Your task to perform on an android device: check data usage Image 0: 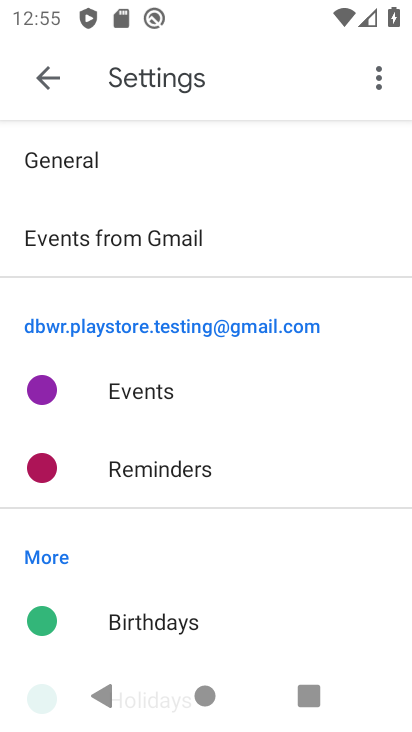
Step 0: press back button
Your task to perform on an android device: check data usage Image 1: 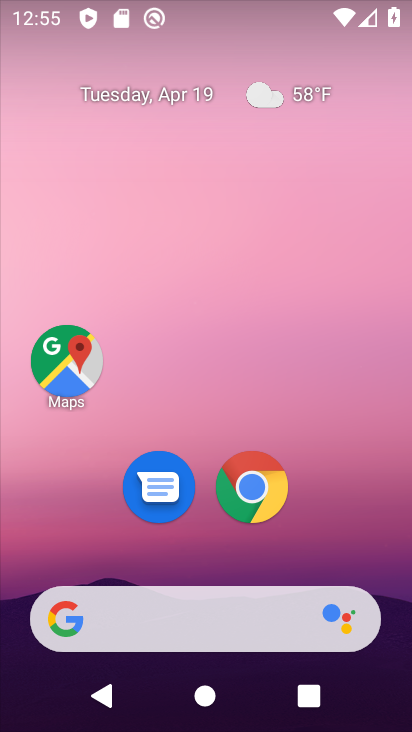
Step 1: drag from (212, 720) to (172, 86)
Your task to perform on an android device: check data usage Image 2: 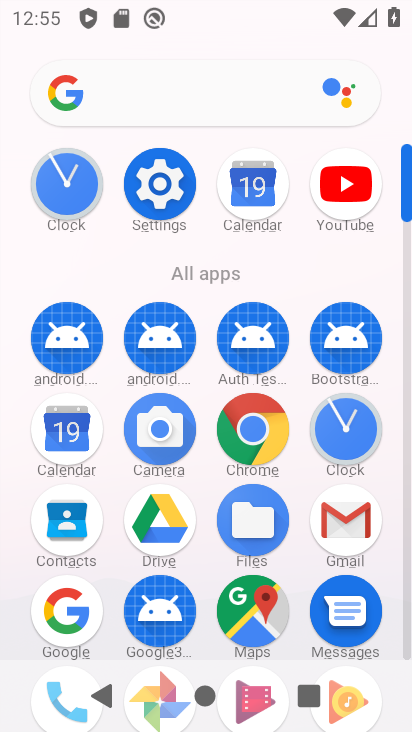
Step 2: click (158, 190)
Your task to perform on an android device: check data usage Image 3: 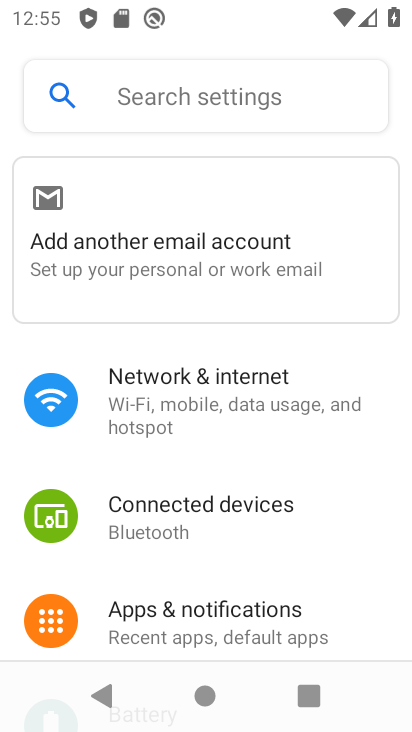
Step 3: click (168, 397)
Your task to perform on an android device: check data usage Image 4: 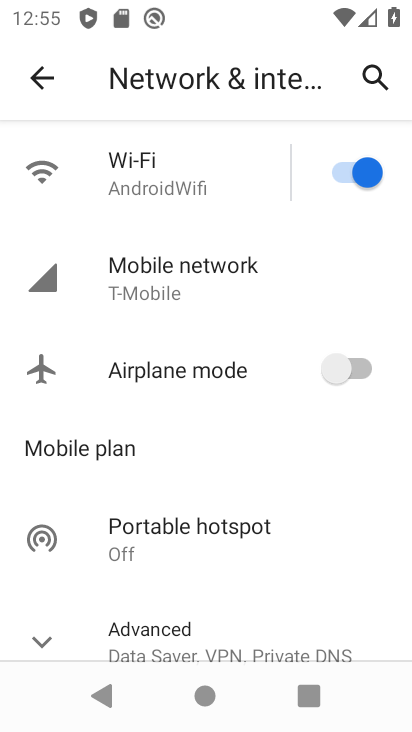
Step 4: drag from (196, 630) to (196, 156)
Your task to perform on an android device: check data usage Image 5: 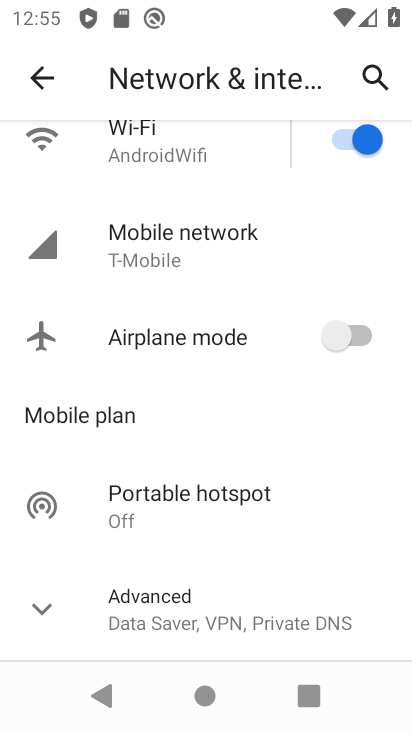
Step 5: click (163, 246)
Your task to perform on an android device: check data usage Image 6: 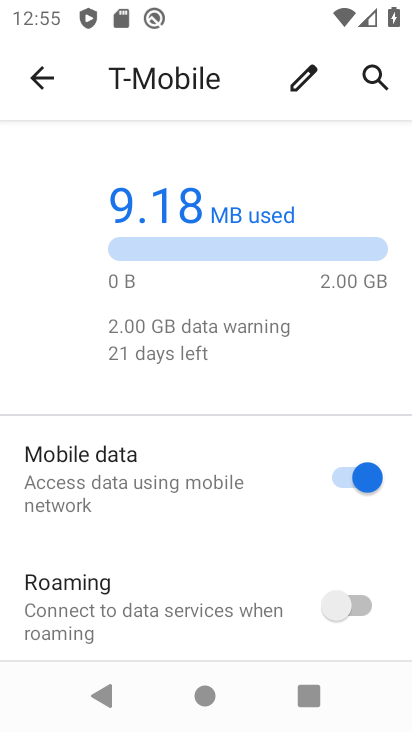
Step 6: drag from (167, 626) to (175, 196)
Your task to perform on an android device: check data usage Image 7: 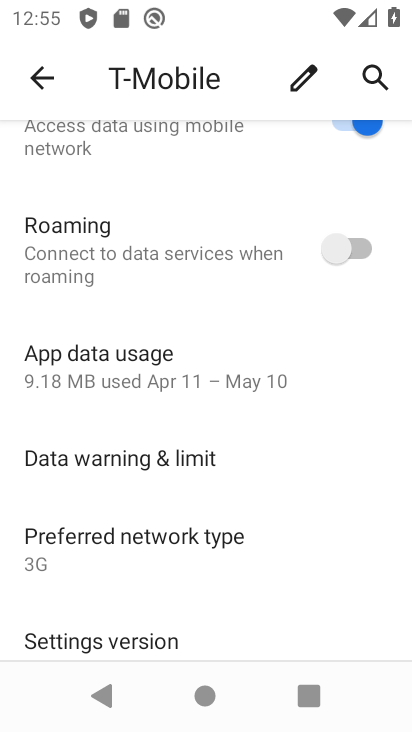
Step 7: click (148, 363)
Your task to perform on an android device: check data usage Image 8: 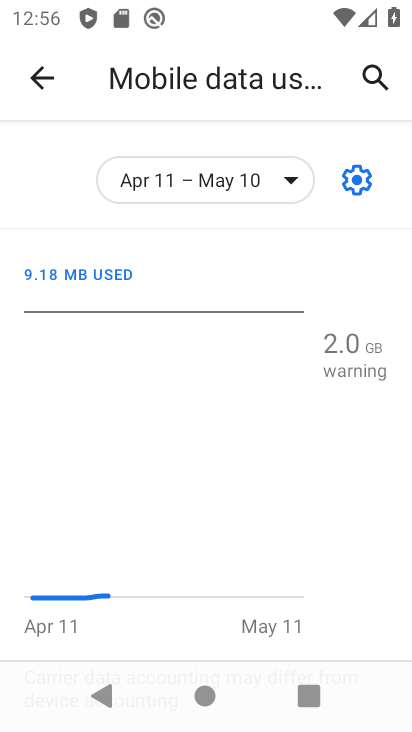
Step 8: task complete